Your task to perform on an android device: turn off improve location accuracy Image 0: 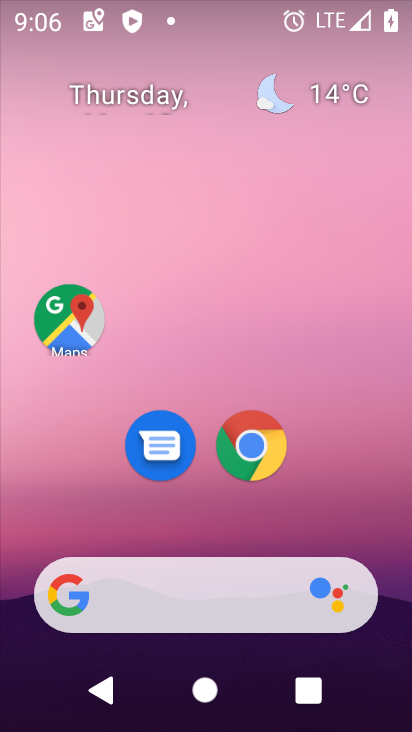
Step 0: drag from (228, 720) to (232, 83)
Your task to perform on an android device: turn off improve location accuracy Image 1: 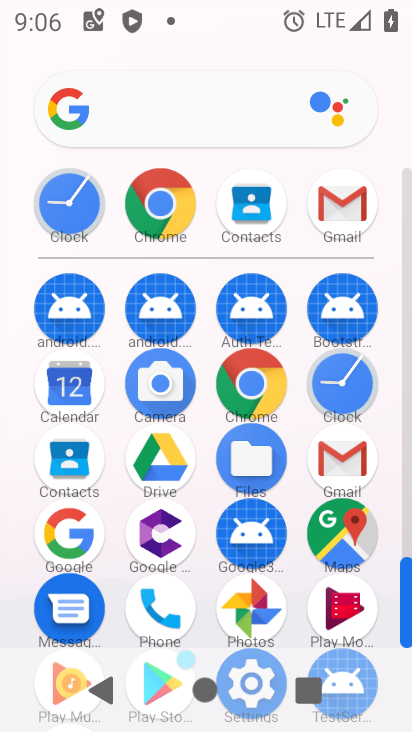
Step 1: drag from (30, 572) to (34, 148)
Your task to perform on an android device: turn off improve location accuracy Image 2: 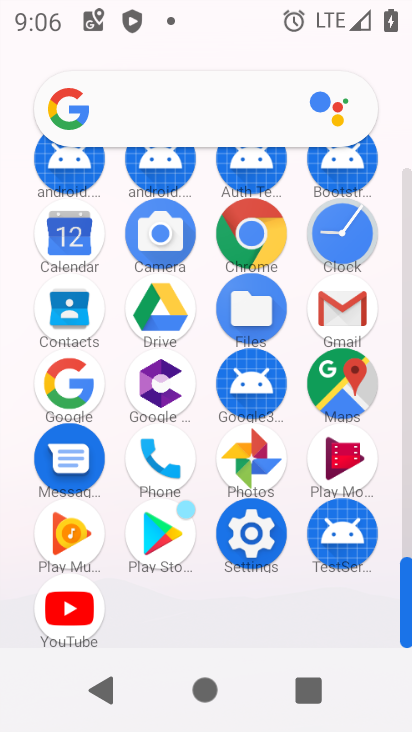
Step 2: click (253, 521)
Your task to perform on an android device: turn off improve location accuracy Image 3: 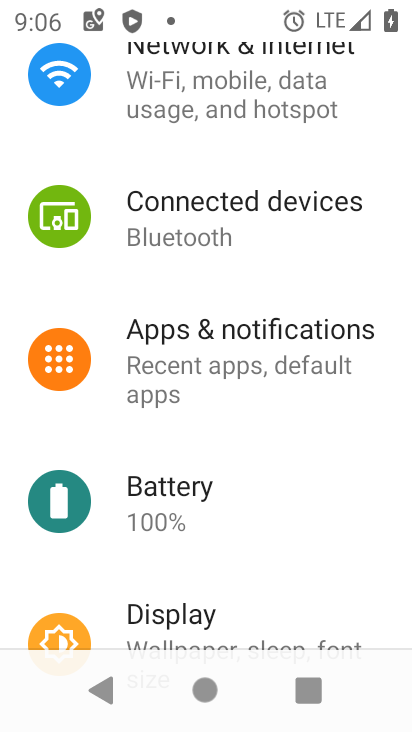
Step 3: drag from (207, 600) to (221, 134)
Your task to perform on an android device: turn off improve location accuracy Image 4: 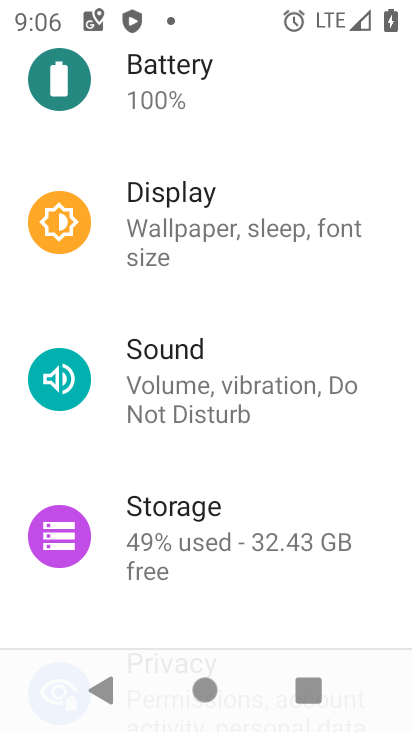
Step 4: drag from (211, 600) to (218, 185)
Your task to perform on an android device: turn off improve location accuracy Image 5: 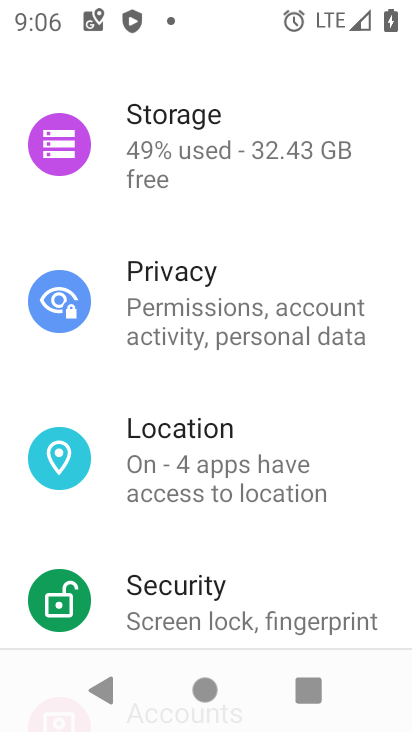
Step 5: click (193, 475)
Your task to perform on an android device: turn off improve location accuracy Image 6: 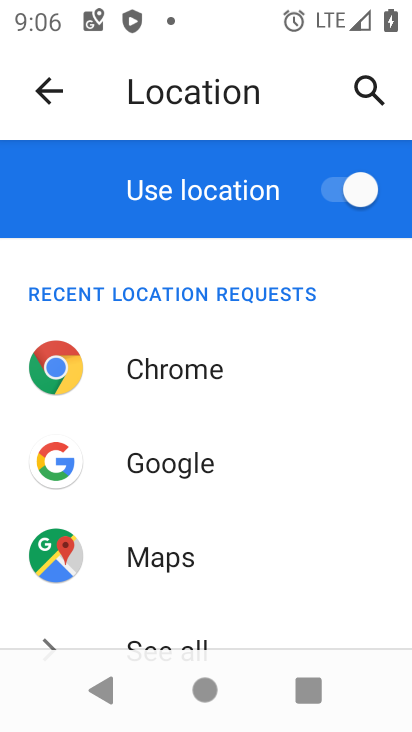
Step 6: drag from (287, 611) to (298, 325)
Your task to perform on an android device: turn off improve location accuracy Image 7: 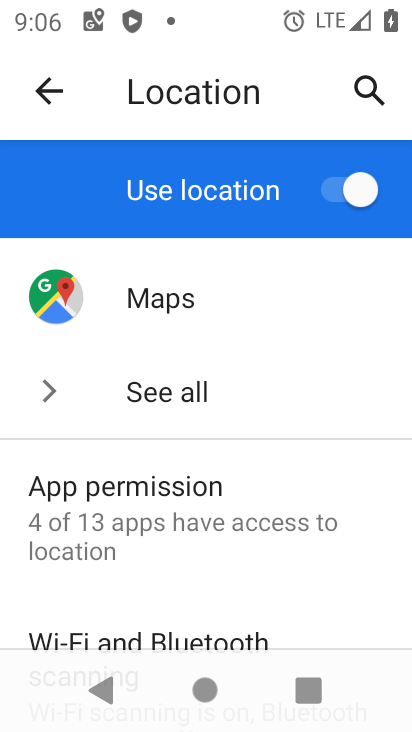
Step 7: drag from (297, 598) to (295, 223)
Your task to perform on an android device: turn off improve location accuracy Image 8: 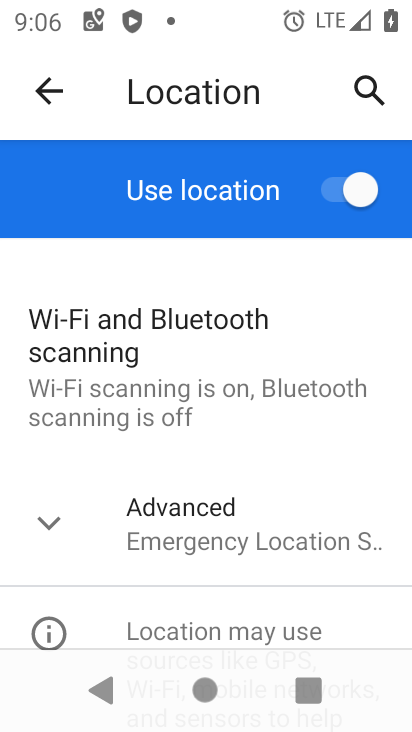
Step 8: drag from (289, 587) to (295, 267)
Your task to perform on an android device: turn off improve location accuracy Image 9: 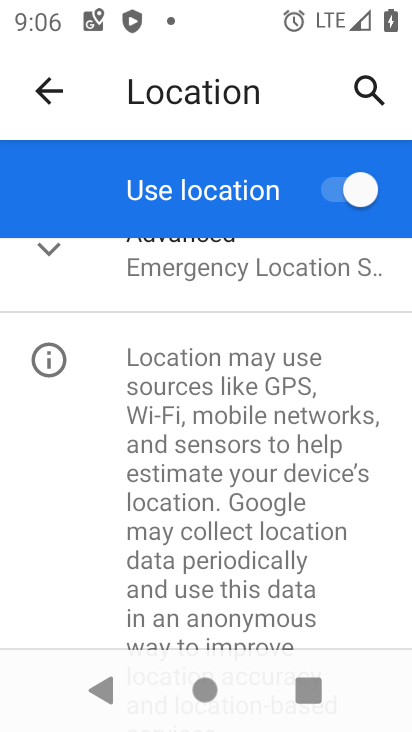
Step 9: drag from (77, 308) to (69, 561)
Your task to perform on an android device: turn off improve location accuracy Image 10: 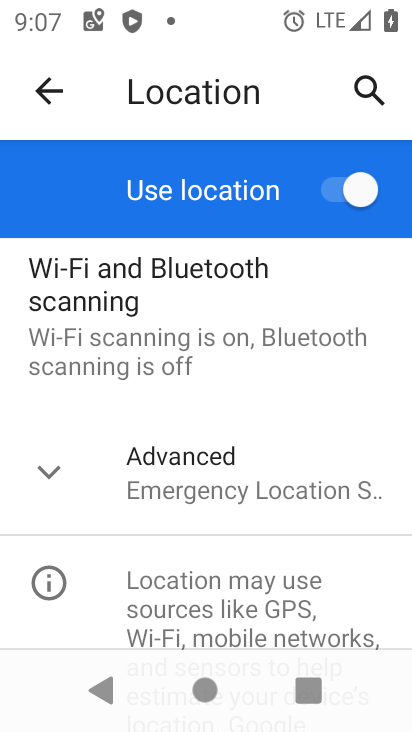
Step 10: click (172, 465)
Your task to perform on an android device: turn off improve location accuracy Image 11: 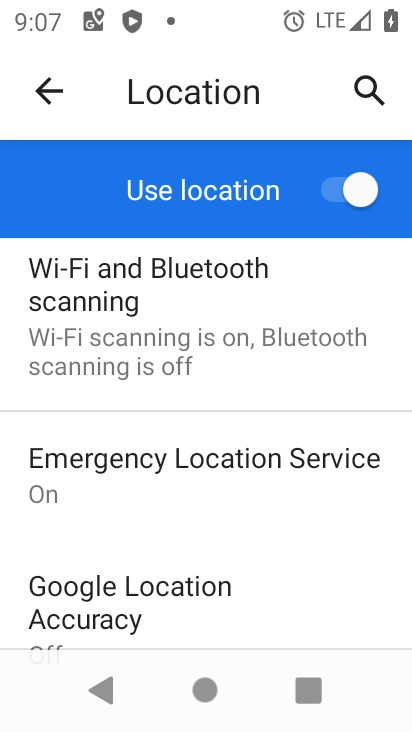
Step 11: click (154, 591)
Your task to perform on an android device: turn off improve location accuracy Image 12: 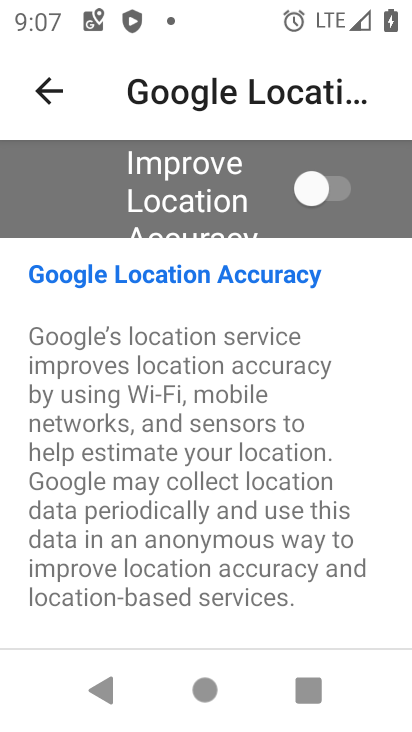
Step 12: task complete